Your task to perform on an android device: Open Chrome and go to settings Image 0: 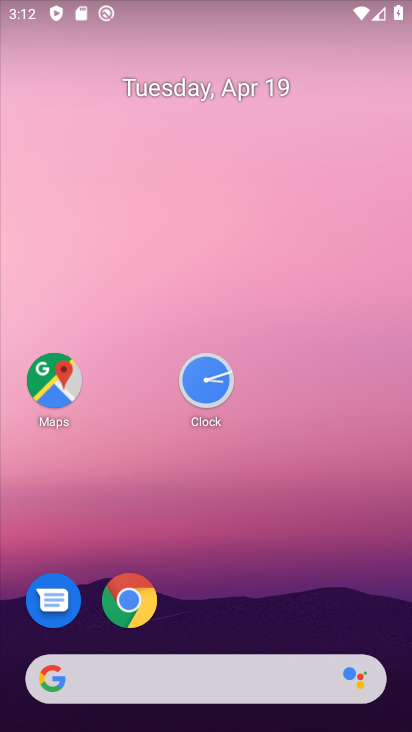
Step 0: drag from (255, 321) to (197, 110)
Your task to perform on an android device: Open Chrome and go to settings Image 1: 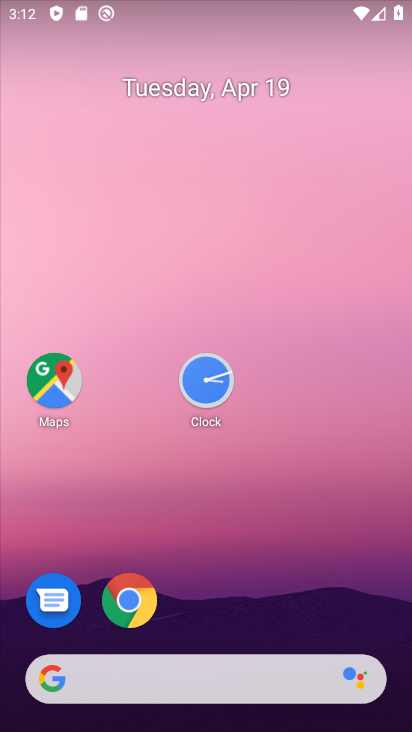
Step 1: drag from (288, 649) to (192, 120)
Your task to perform on an android device: Open Chrome and go to settings Image 2: 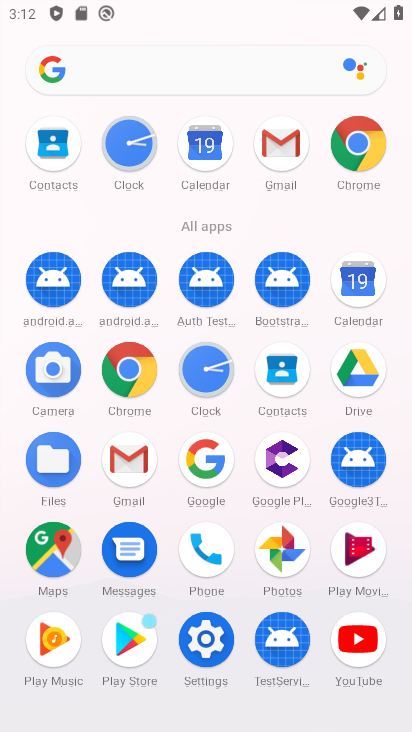
Step 2: click (358, 138)
Your task to perform on an android device: Open Chrome and go to settings Image 3: 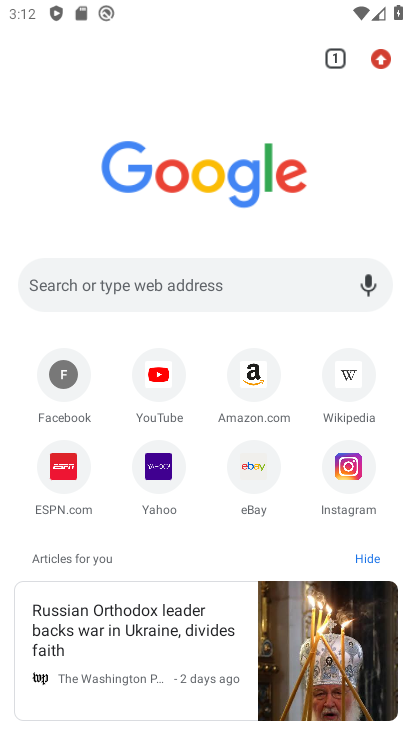
Step 3: click (379, 60)
Your task to perform on an android device: Open Chrome and go to settings Image 4: 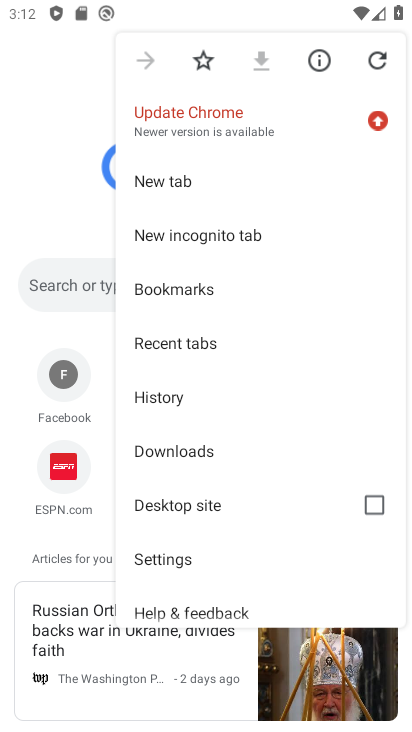
Step 4: click (165, 554)
Your task to perform on an android device: Open Chrome and go to settings Image 5: 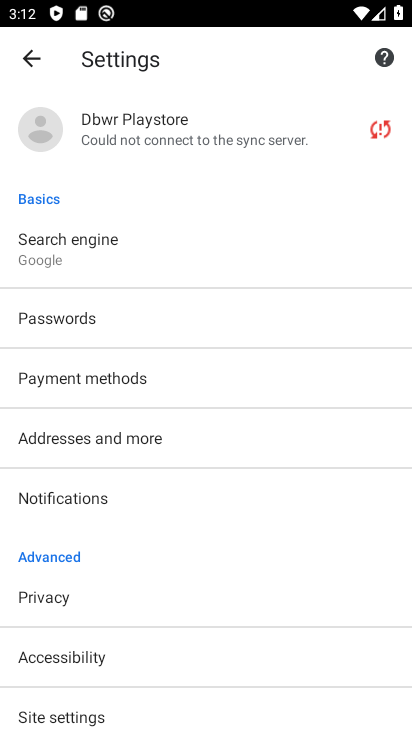
Step 5: task complete